Your task to perform on an android device: turn off location Image 0: 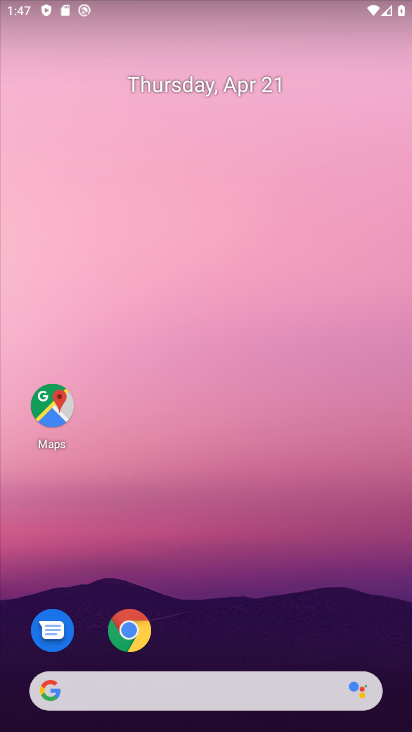
Step 0: drag from (294, 606) to (293, 1)
Your task to perform on an android device: turn off location Image 1: 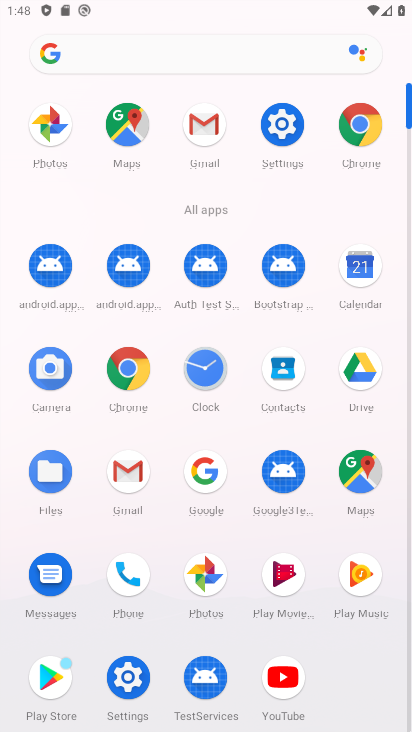
Step 1: click (272, 137)
Your task to perform on an android device: turn off location Image 2: 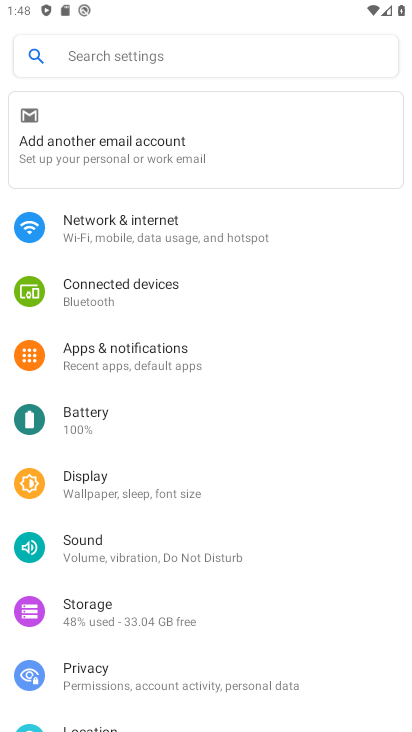
Step 2: drag from (264, 618) to (265, 338)
Your task to perform on an android device: turn off location Image 3: 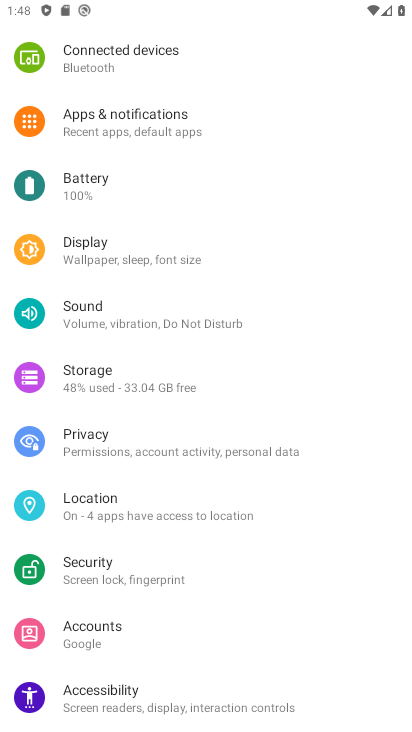
Step 3: click (97, 517)
Your task to perform on an android device: turn off location Image 4: 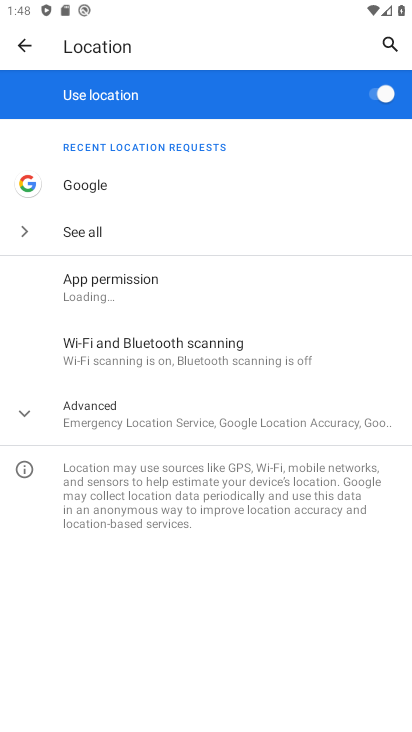
Step 4: click (379, 104)
Your task to perform on an android device: turn off location Image 5: 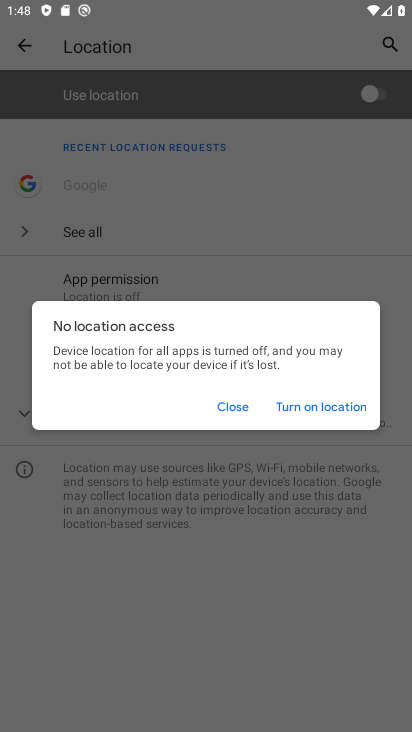
Step 5: task complete